Your task to perform on an android device: What's on my calendar today? Image 0: 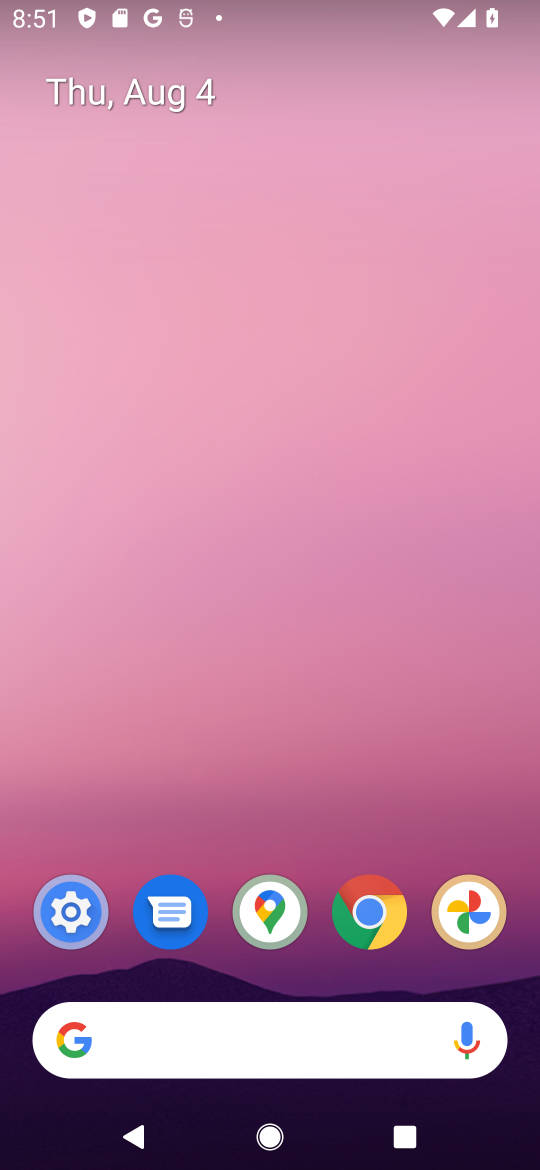
Step 0: drag from (418, 846) to (362, 164)
Your task to perform on an android device: What's on my calendar today? Image 1: 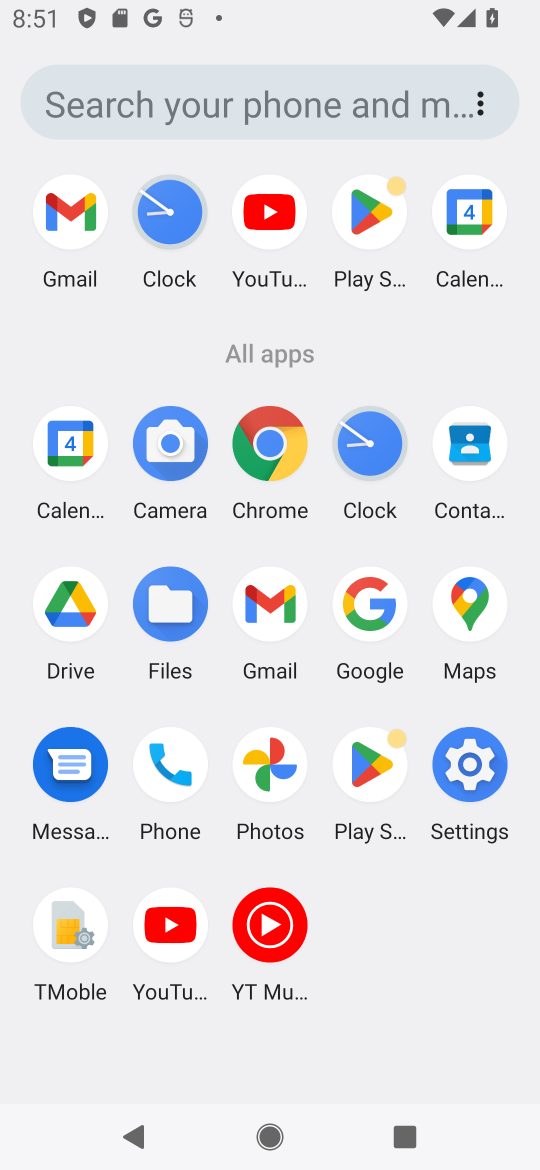
Step 1: click (467, 216)
Your task to perform on an android device: What's on my calendar today? Image 2: 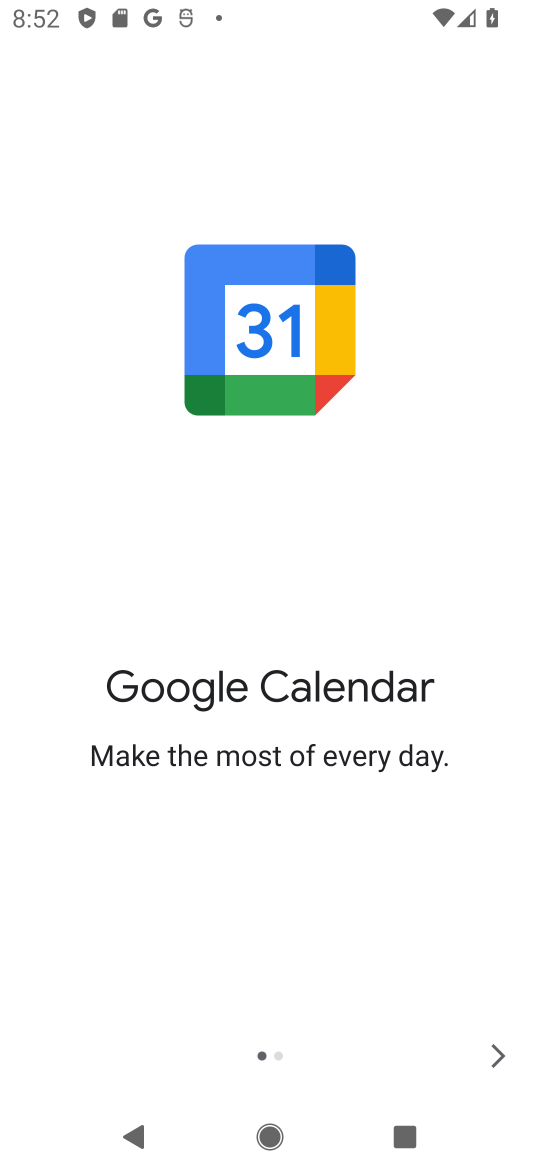
Step 2: click (508, 1062)
Your task to perform on an android device: What's on my calendar today? Image 3: 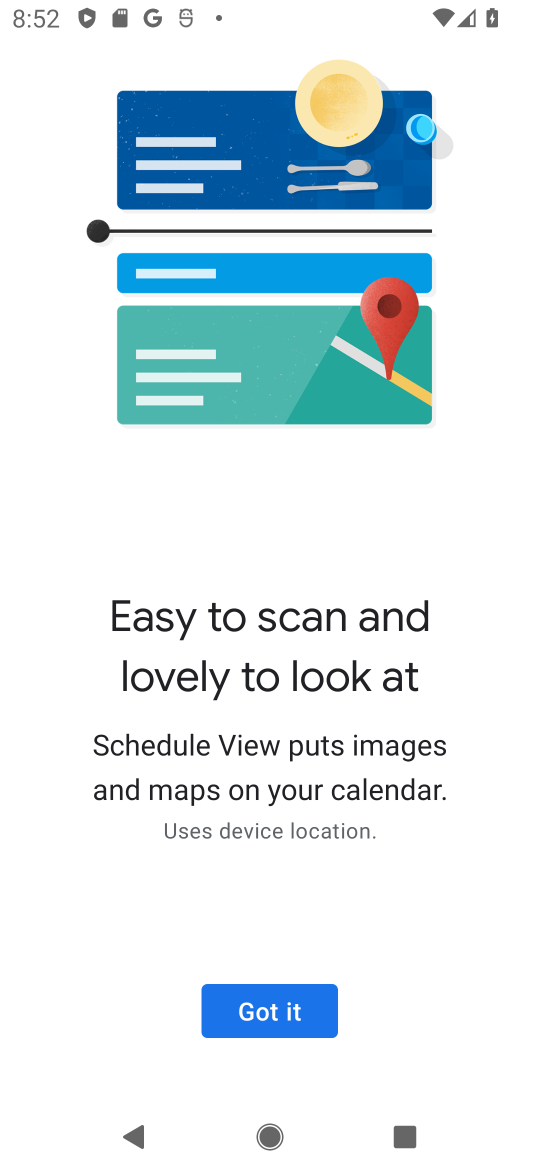
Step 3: click (307, 990)
Your task to perform on an android device: What's on my calendar today? Image 4: 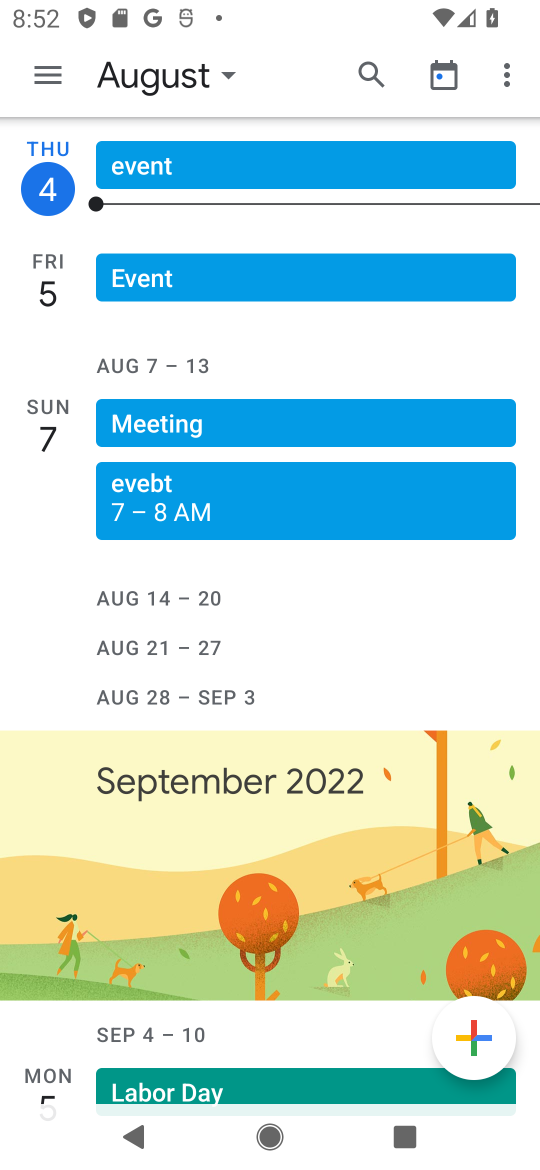
Step 4: click (48, 77)
Your task to perform on an android device: What's on my calendar today? Image 5: 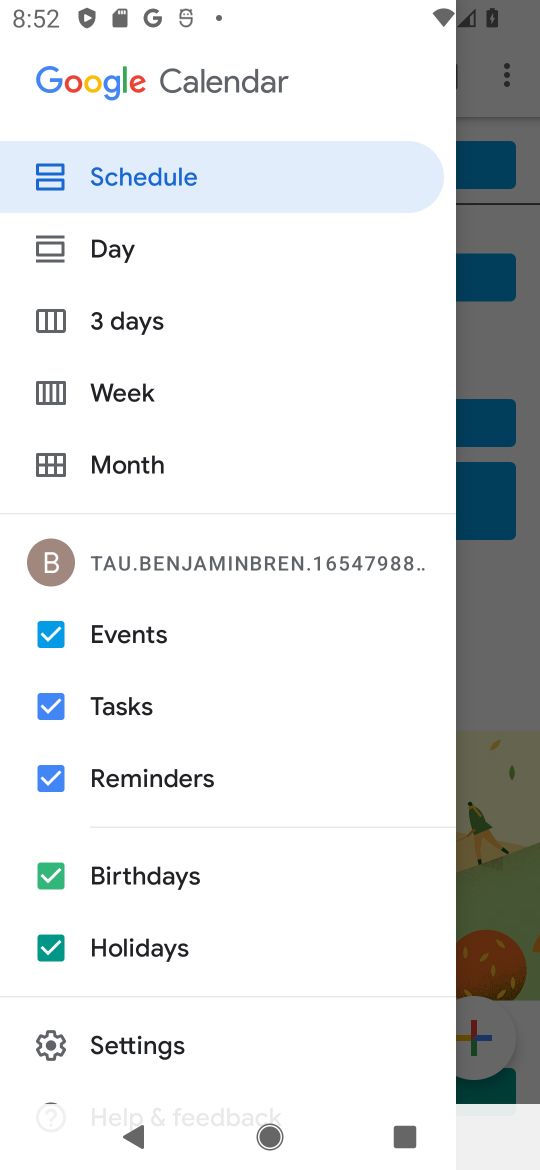
Step 5: click (91, 262)
Your task to perform on an android device: What's on my calendar today? Image 6: 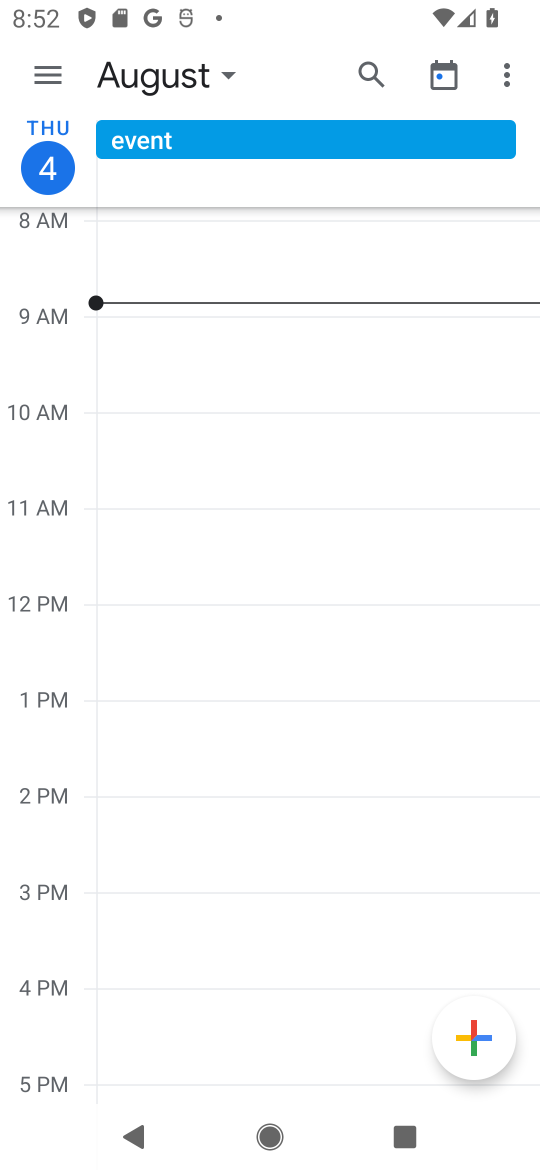
Step 6: task complete